Your task to perform on an android device: Go to notification settings Image 0: 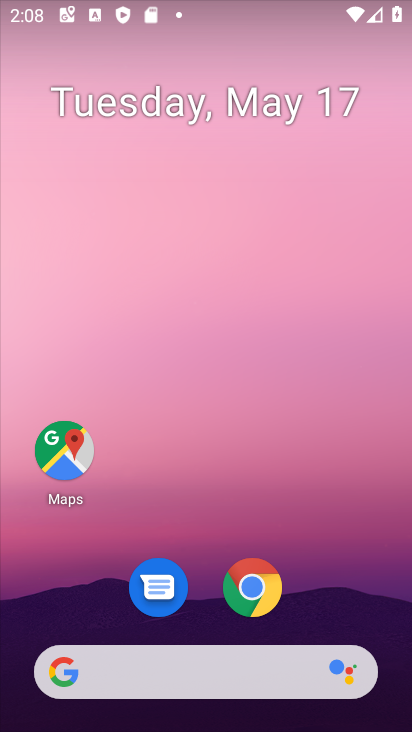
Step 0: drag from (197, 619) to (205, 217)
Your task to perform on an android device: Go to notification settings Image 1: 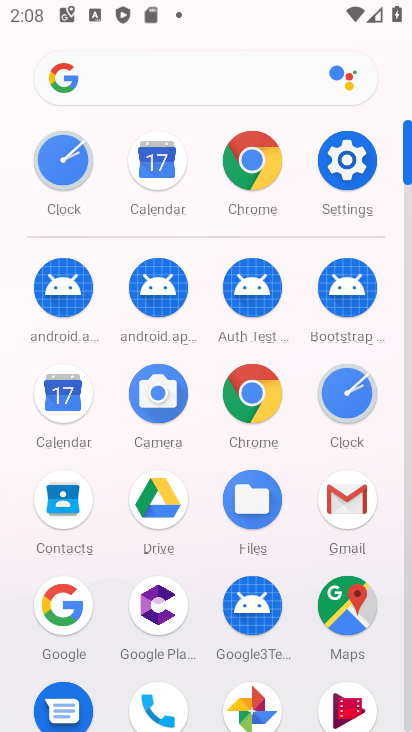
Step 1: click (351, 149)
Your task to perform on an android device: Go to notification settings Image 2: 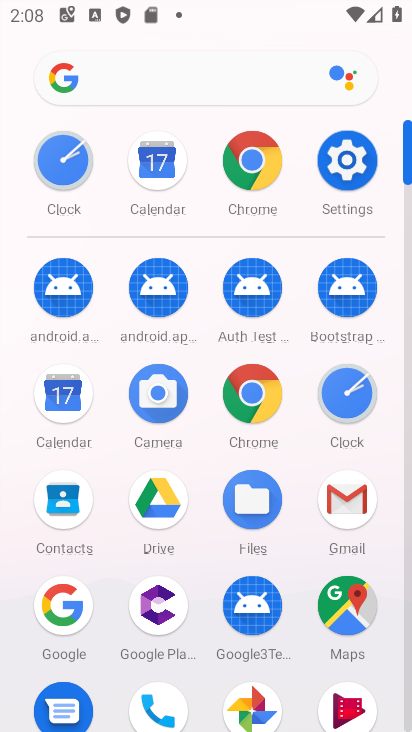
Step 2: click (350, 148)
Your task to perform on an android device: Go to notification settings Image 3: 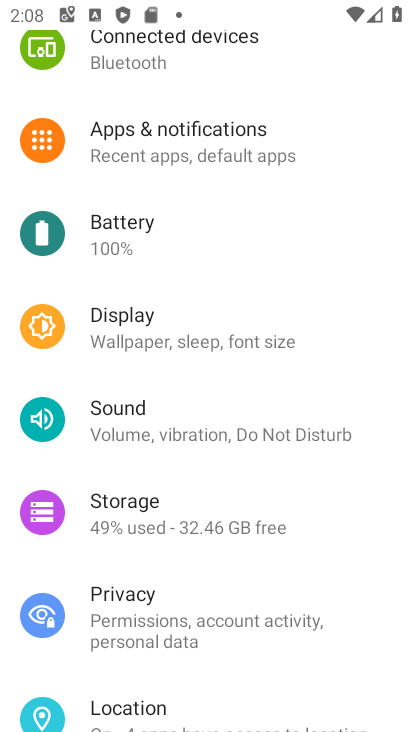
Step 3: click (188, 158)
Your task to perform on an android device: Go to notification settings Image 4: 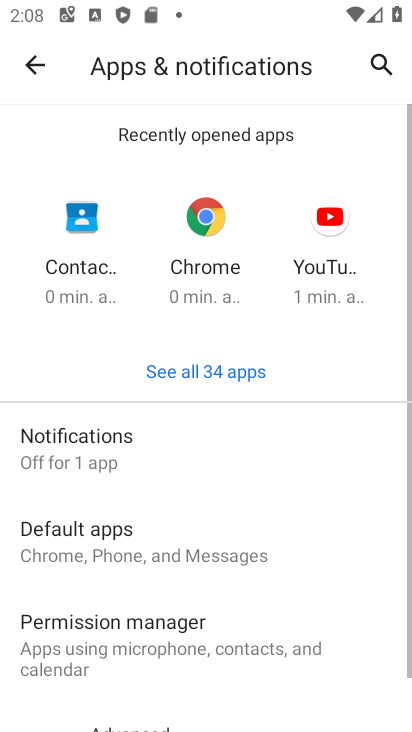
Step 4: drag from (168, 529) to (194, 167)
Your task to perform on an android device: Go to notification settings Image 5: 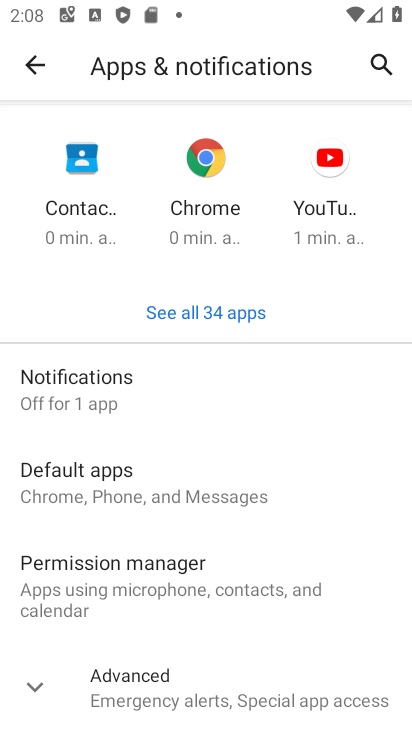
Step 5: click (143, 390)
Your task to perform on an android device: Go to notification settings Image 6: 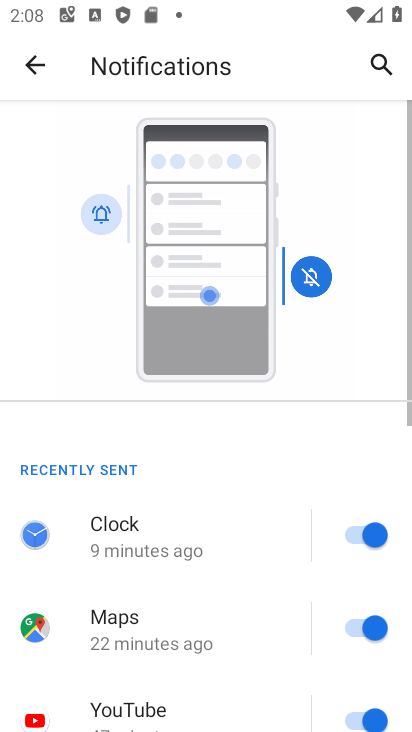
Step 6: task complete